Your task to perform on an android device: Open Reddit.com Image 0: 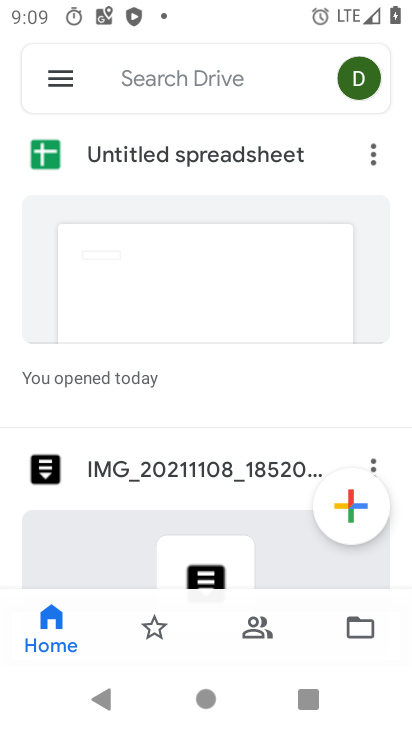
Step 0: press home button
Your task to perform on an android device: Open Reddit.com Image 1: 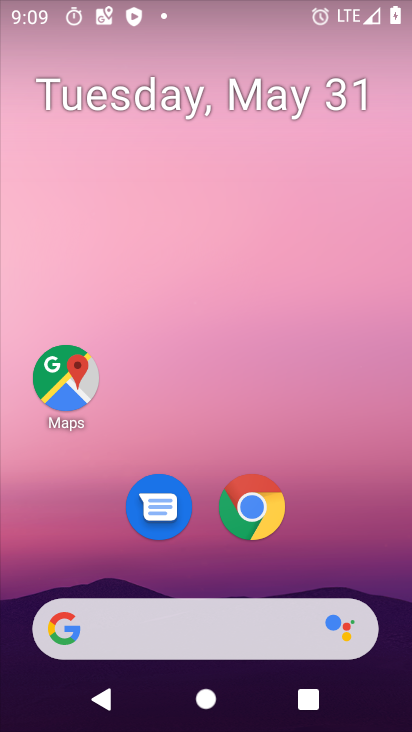
Step 1: click (264, 498)
Your task to perform on an android device: Open Reddit.com Image 2: 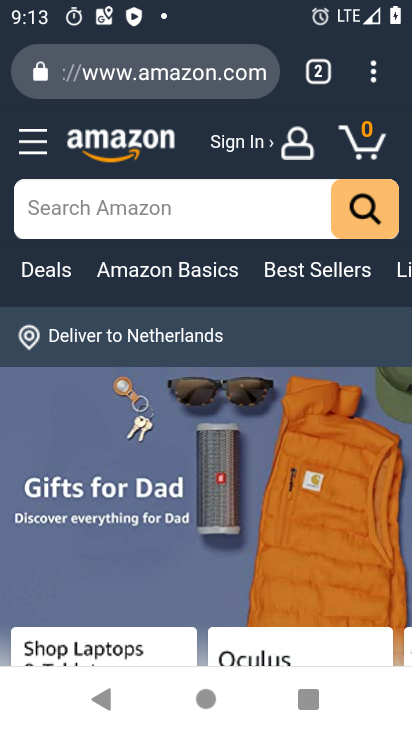
Step 2: task complete